Your task to perform on an android device: turn off notifications in google photos Image 0: 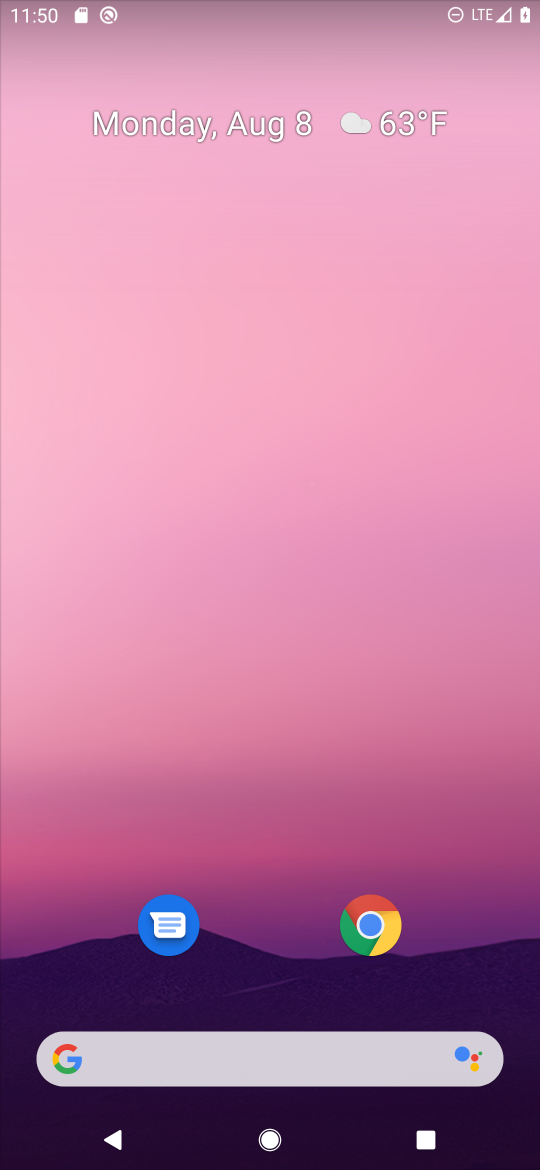
Step 0: drag from (265, 774) to (537, 919)
Your task to perform on an android device: turn off notifications in google photos Image 1: 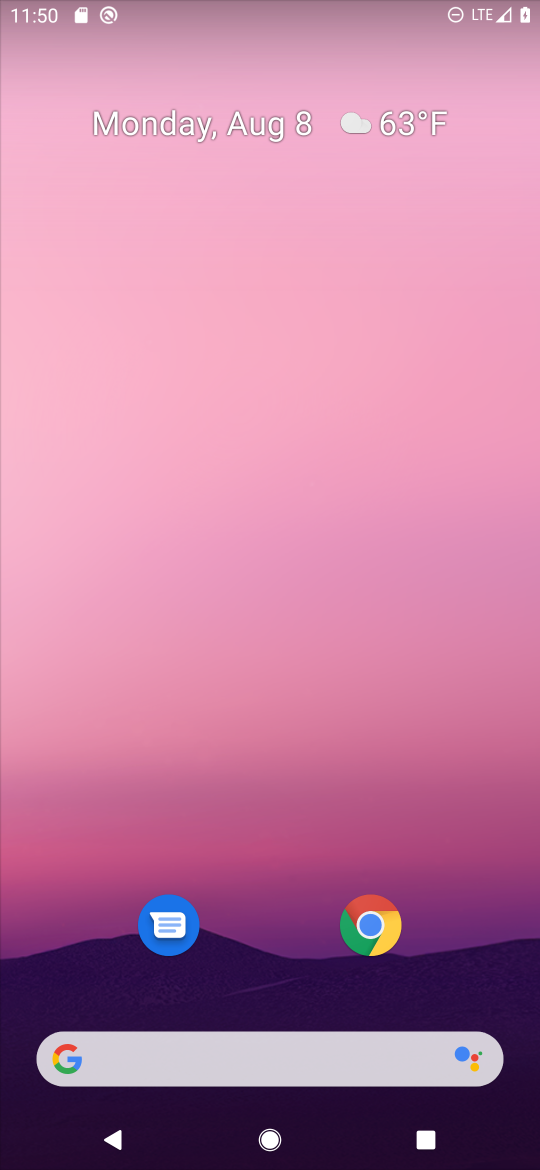
Step 1: drag from (266, 969) to (297, 37)
Your task to perform on an android device: turn off notifications in google photos Image 2: 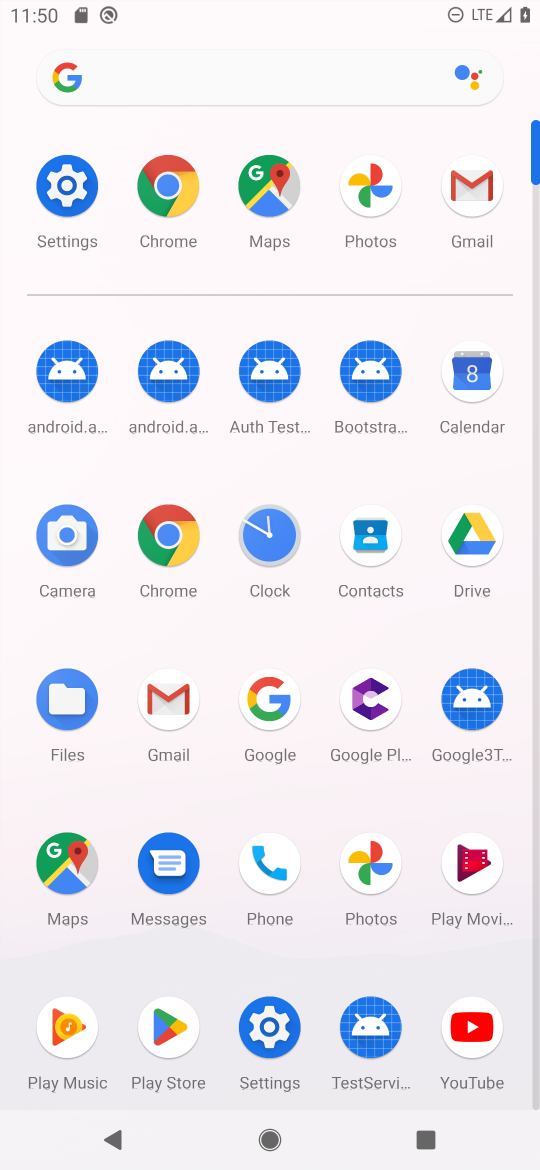
Step 2: click (386, 865)
Your task to perform on an android device: turn off notifications in google photos Image 3: 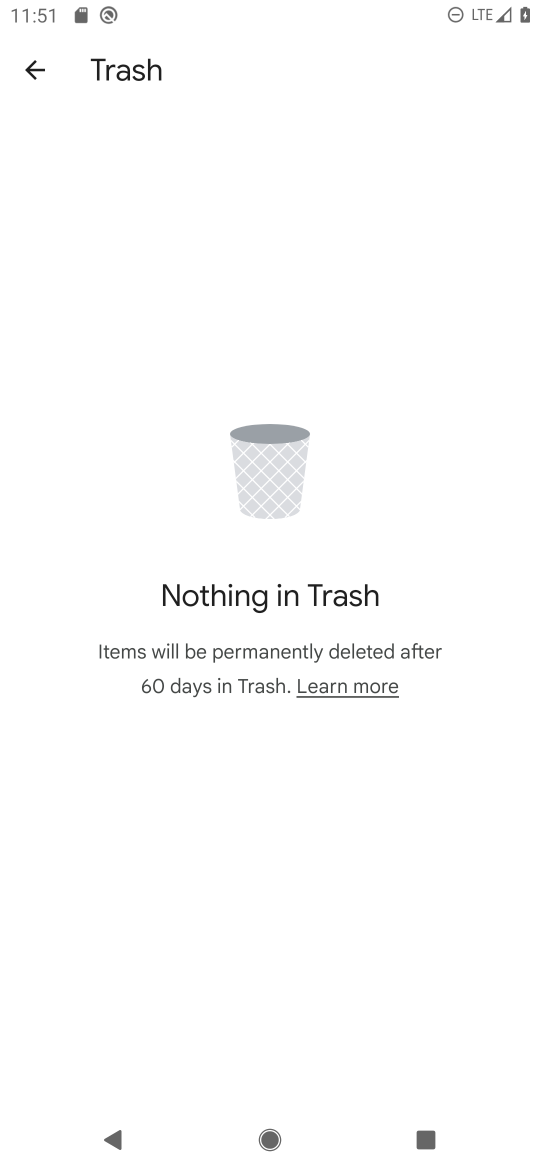
Step 3: click (41, 59)
Your task to perform on an android device: turn off notifications in google photos Image 4: 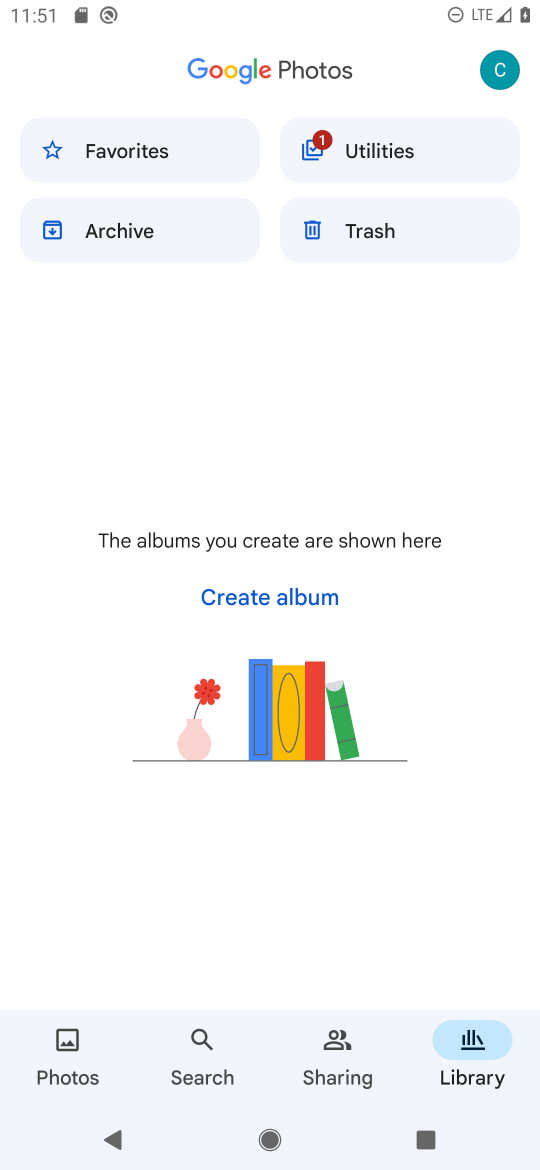
Step 4: click (498, 73)
Your task to perform on an android device: turn off notifications in google photos Image 5: 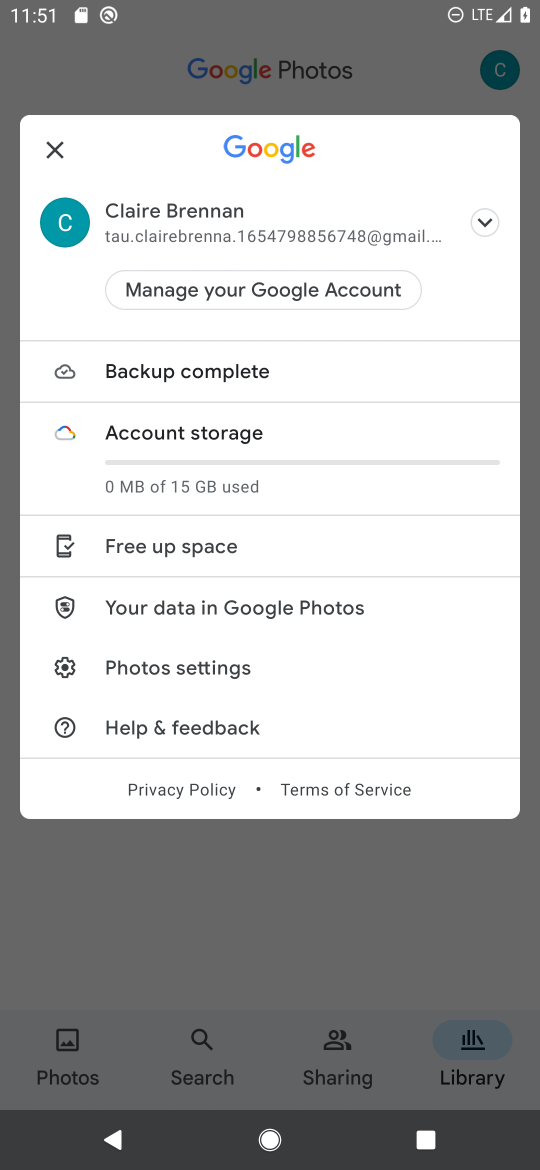
Step 5: click (170, 669)
Your task to perform on an android device: turn off notifications in google photos Image 6: 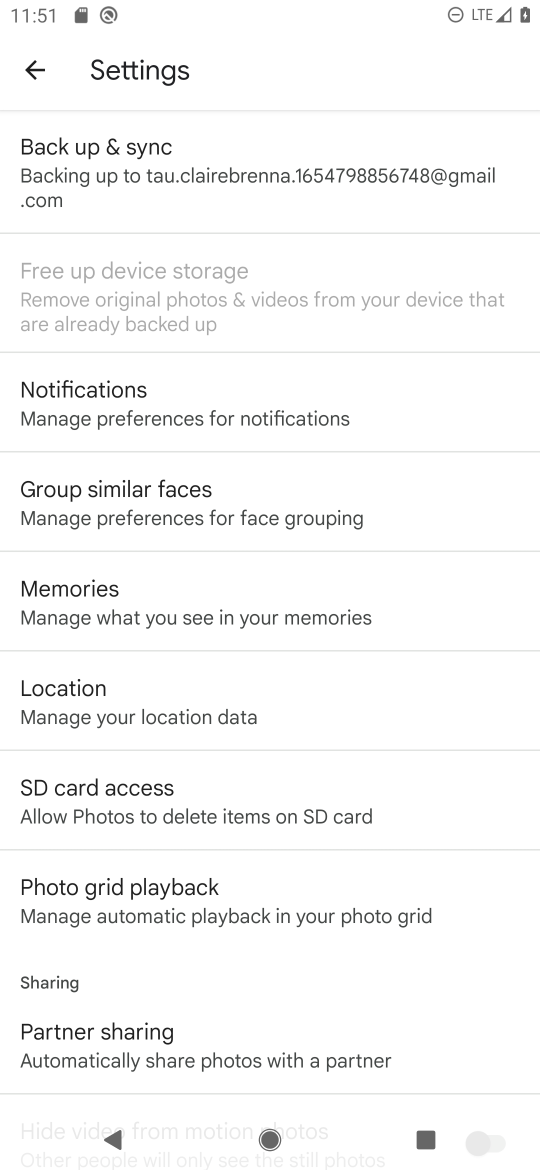
Step 6: click (181, 418)
Your task to perform on an android device: turn off notifications in google photos Image 7: 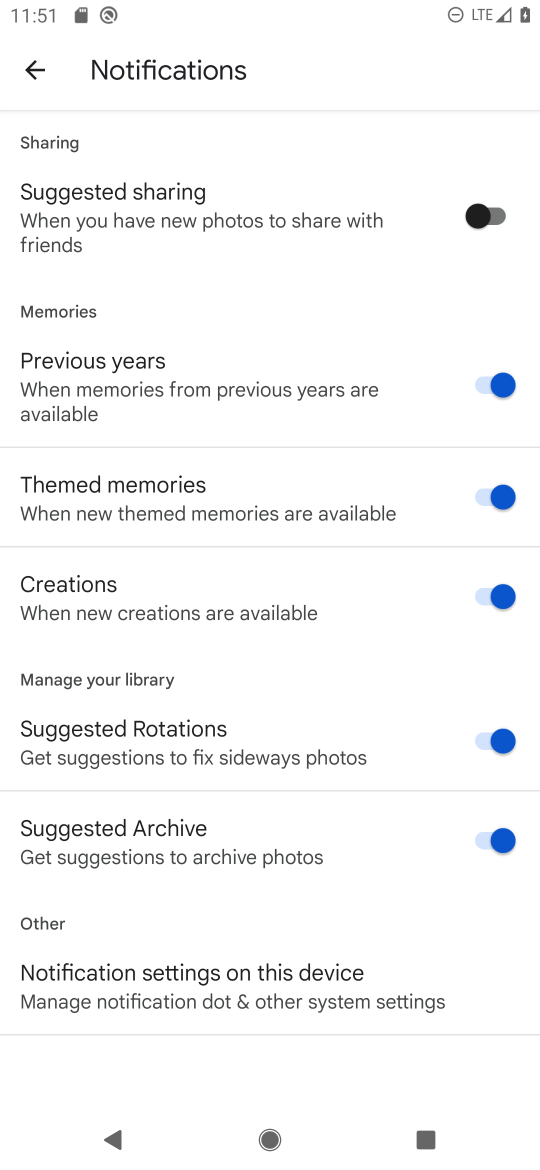
Step 7: task complete